Your task to perform on an android device: Do I have any events this weekend? Image 0: 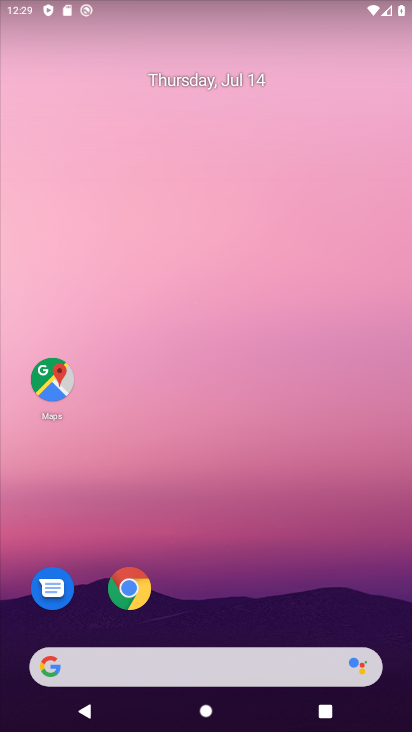
Step 0: drag from (273, 632) to (262, 188)
Your task to perform on an android device: Do I have any events this weekend? Image 1: 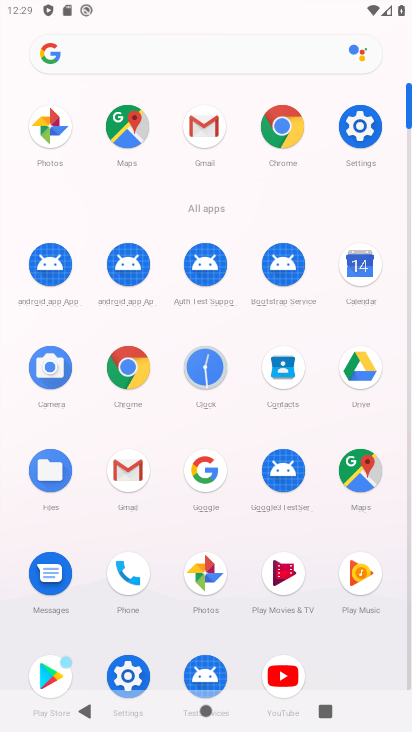
Step 1: click (349, 264)
Your task to perform on an android device: Do I have any events this weekend? Image 2: 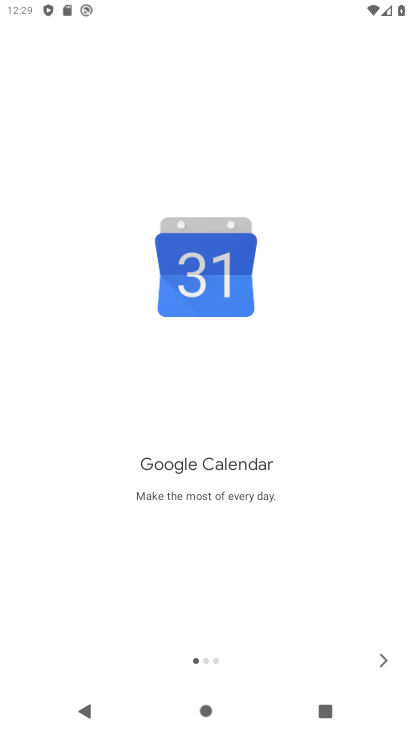
Step 2: click (373, 664)
Your task to perform on an android device: Do I have any events this weekend? Image 3: 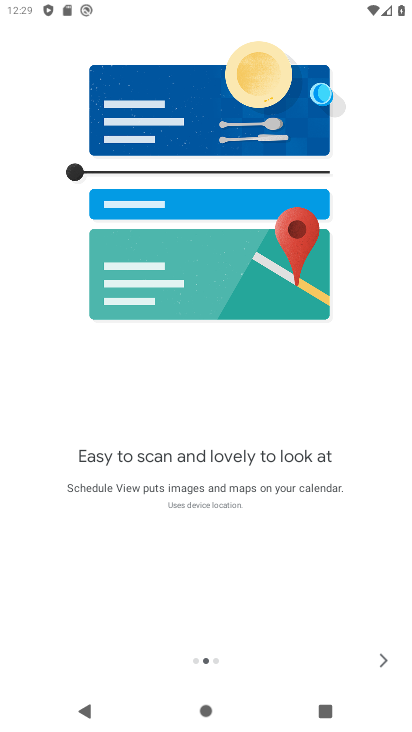
Step 3: click (373, 664)
Your task to perform on an android device: Do I have any events this weekend? Image 4: 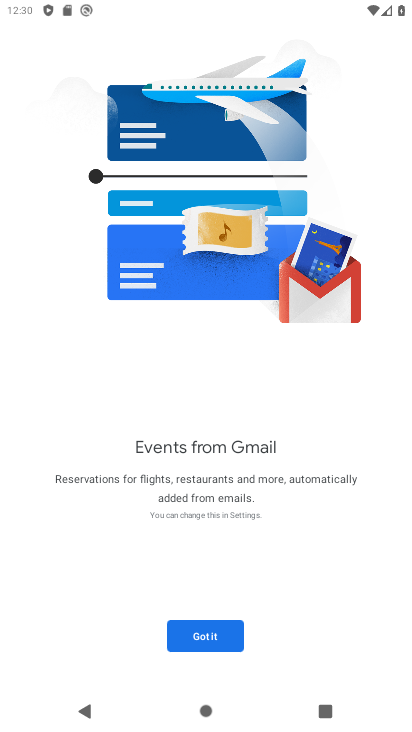
Step 4: click (227, 637)
Your task to perform on an android device: Do I have any events this weekend? Image 5: 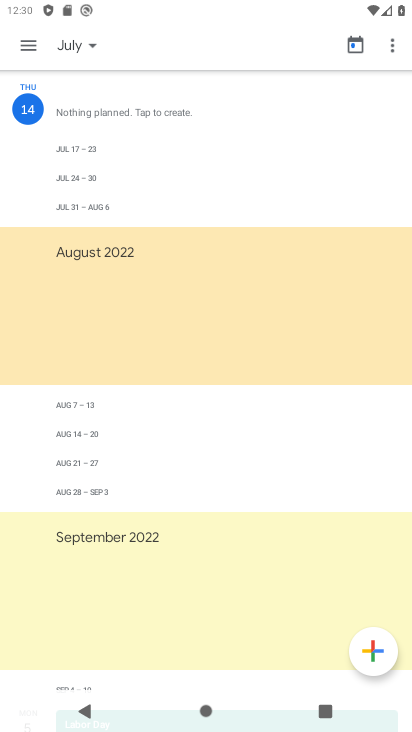
Step 5: click (23, 32)
Your task to perform on an android device: Do I have any events this weekend? Image 6: 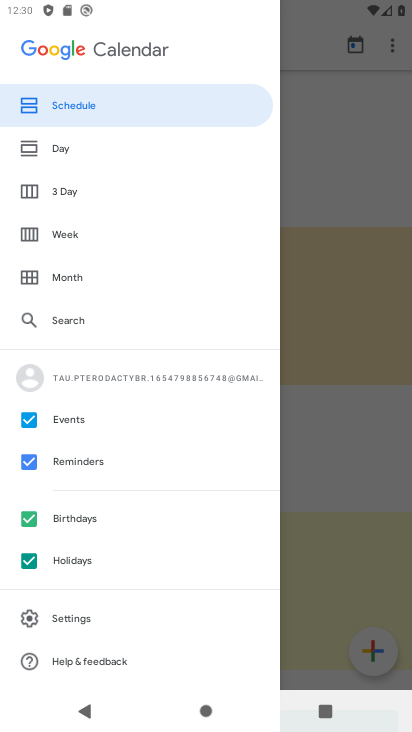
Step 6: click (77, 245)
Your task to perform on an android device: Do I have any events this weekend? Image 7: 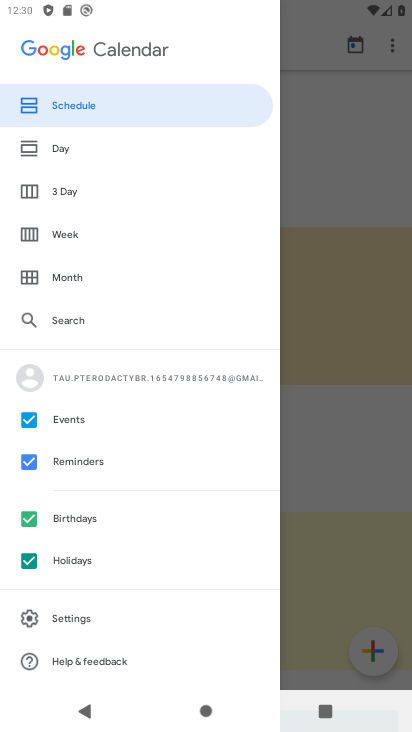
Step 7: click (95, 241)
Your task to perform on an android device: Do I have any events this weekend? Image 8: 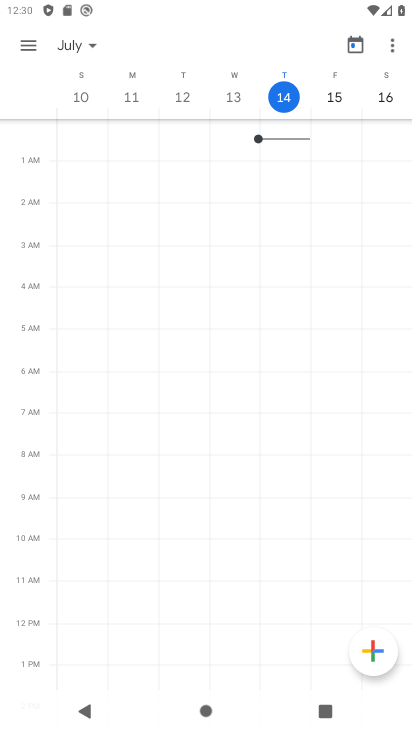
Step 8: task complete